Your task to perform on an android device: Open Yahoo.com Image 0: 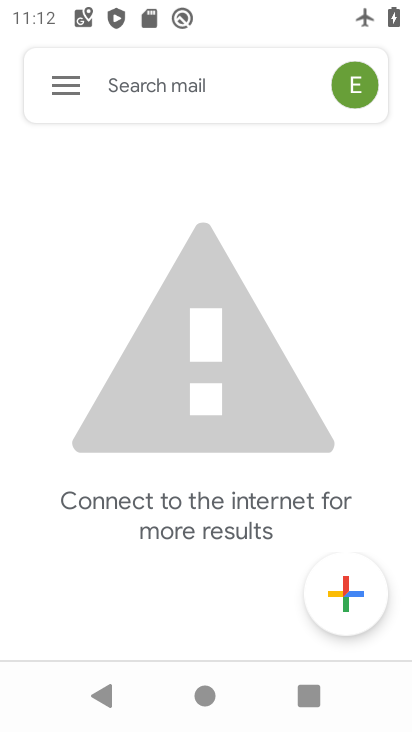
Step 0: press home button
Your task to perform on an android device: Open Yahoo.com Image 1: 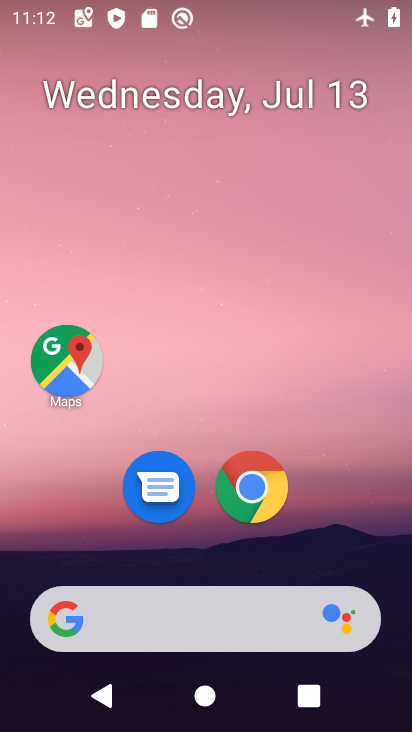
Step 1: click (258, 490)
Your task to perform on an android device: Open Yahoo.com Image 2: 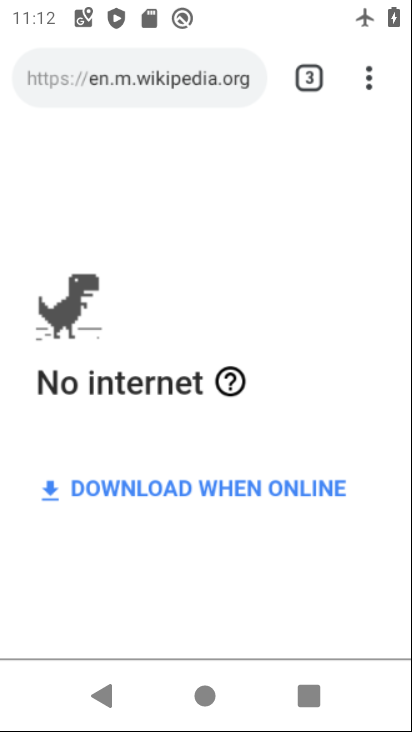
Step 2: click (302, 79)
Your task to perform on an android device: Open Yahoo.com Image 3: 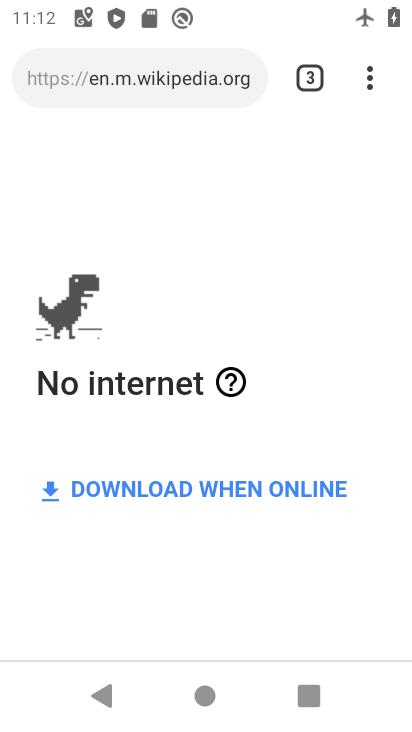
Step 3: click (311, 72)
Your task to perform on an android device: Open Yahoo.com Image 4: 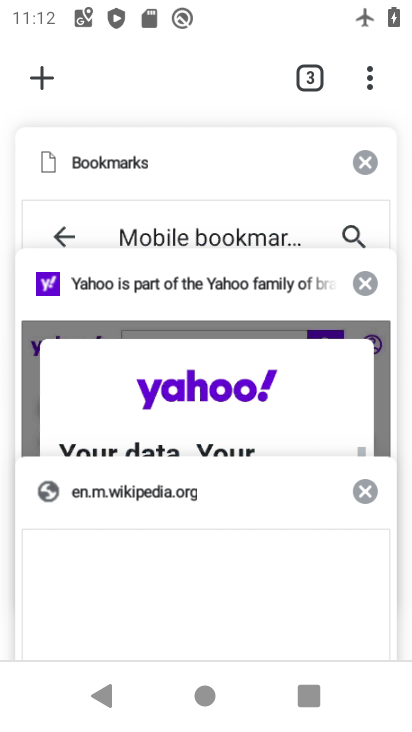
Step 4: click (116, 380)
Your task to perform on an android device: Open Yahoo.com Image 5: 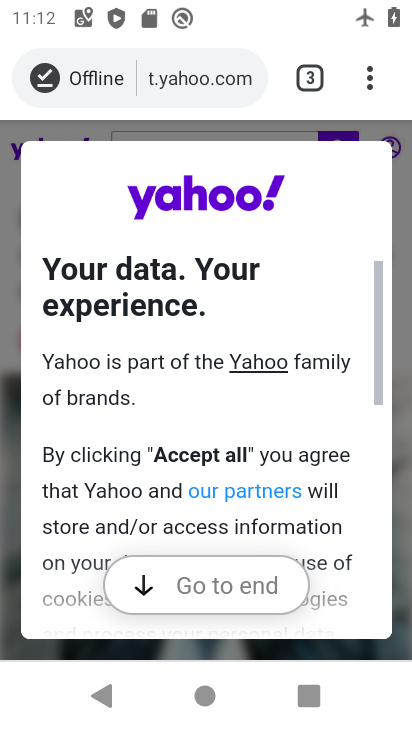
Step 5: click (259, 565)
Your task to perform on an android device: Open Yahoo.com Image 6: 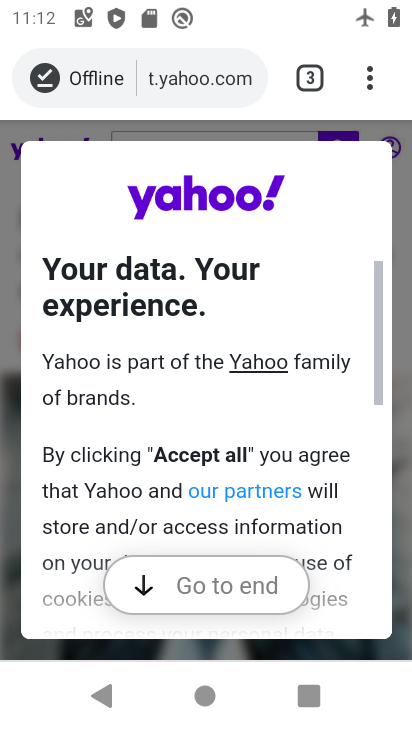
Step 6: click (258, 559)
Your task to perform on an android device: Open Yahoo.com Image 7: 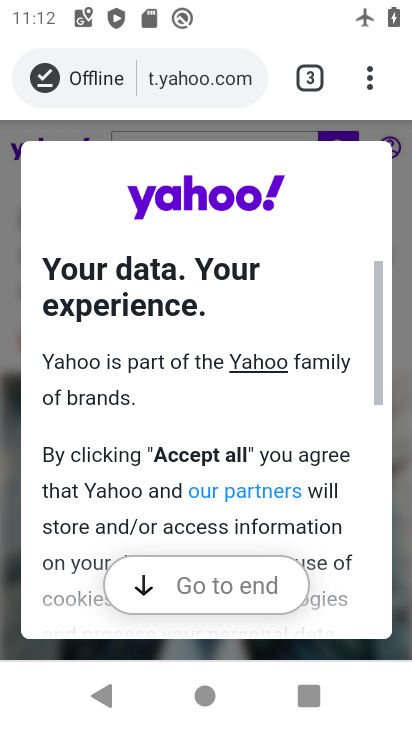
Step 7: task complete